Your task to perform on an android device: turn off data saver in the chrome app Image 0: 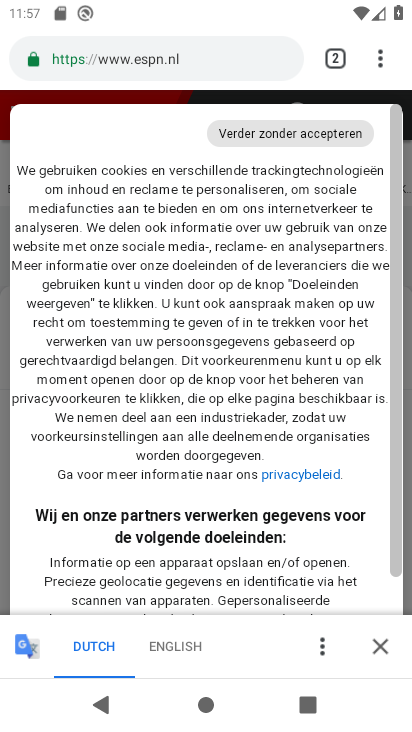
Step 0: press home button
Your task to perform on an android device: turn off data saver in the chrome app Image 1: 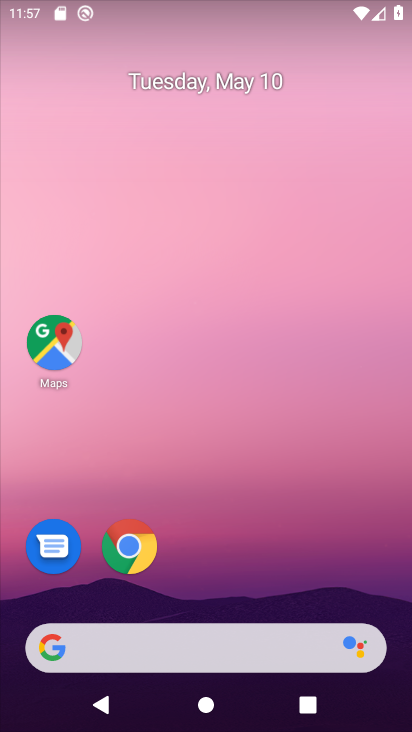
Step 1: drag from (267, 514) to (278, 299)
Your task to perform on an android device: turn off data saver in the chrome app Image 2: 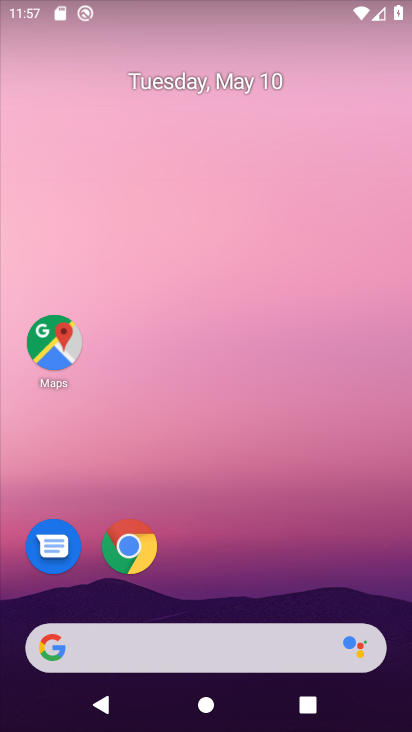
Step 2: drag from (257, 573) to (294, 290)
Your task to perform on an android device: turn off data saver in the chrome app Image 3: 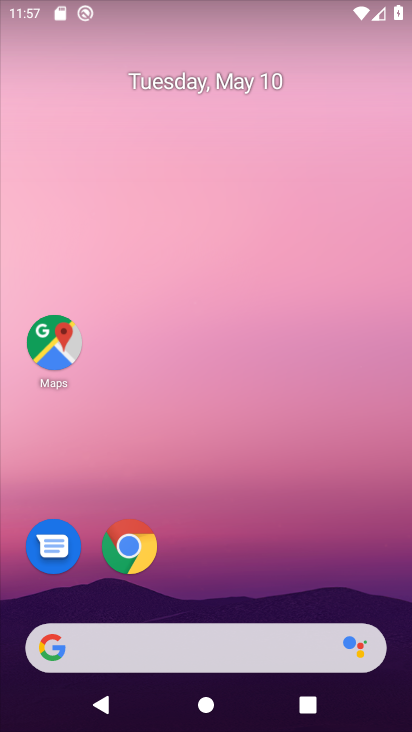
Step 3: drag from (242, 611) to (268, 226)
Your task to perform on an android device: turn off data saver in the chrome app Image 4: 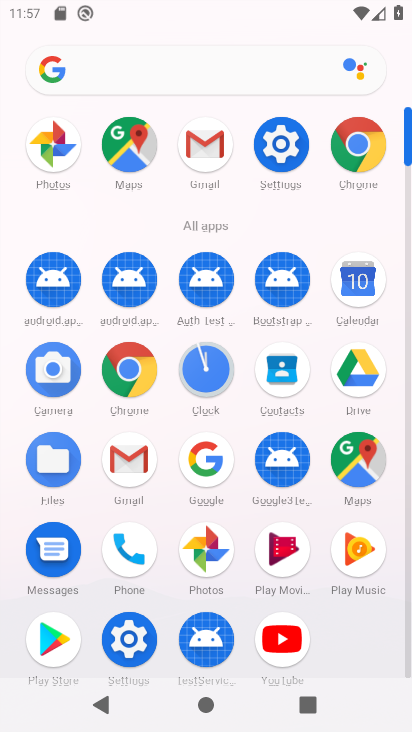
Step 4: click (367, 146)
Your task to perform on an android device: turn off data saver in the chrome app Image 5: 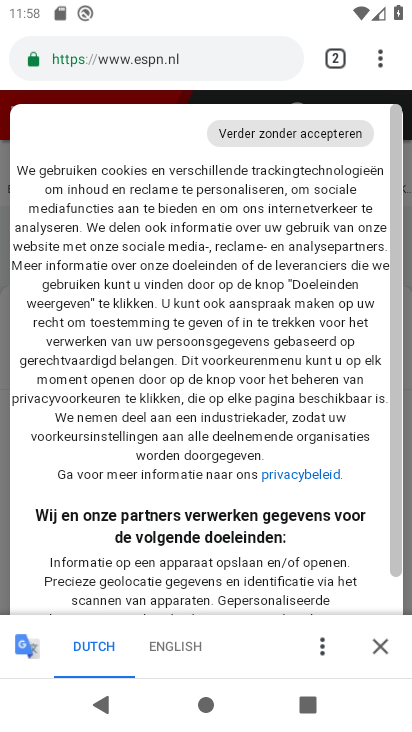
Step 5: click (368, 60)
Your task to perform on an android device: turn off data saver in the chrome app Image 6: 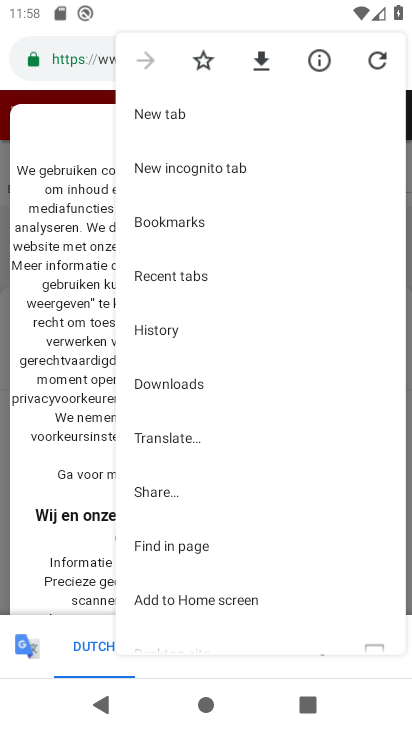
Step 6: drag from (203, 556) to (249, 292)
Your task to perform on an android device: turn off data saver in the chrome app Image 7: 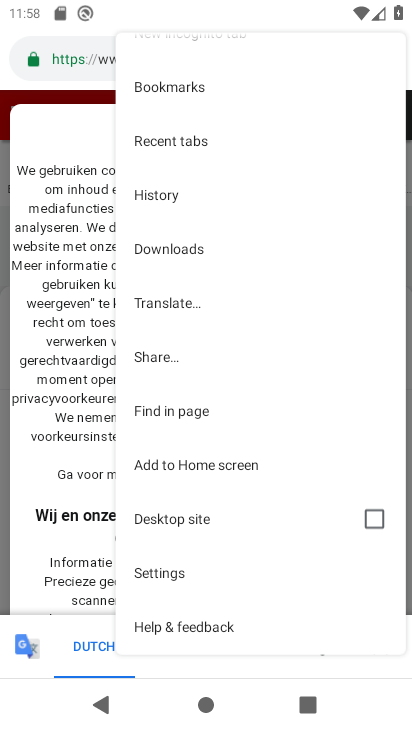
Step 7: click (189, 573)
Your task to perform on an android device: turn off data saver in the chrome app Image 8: 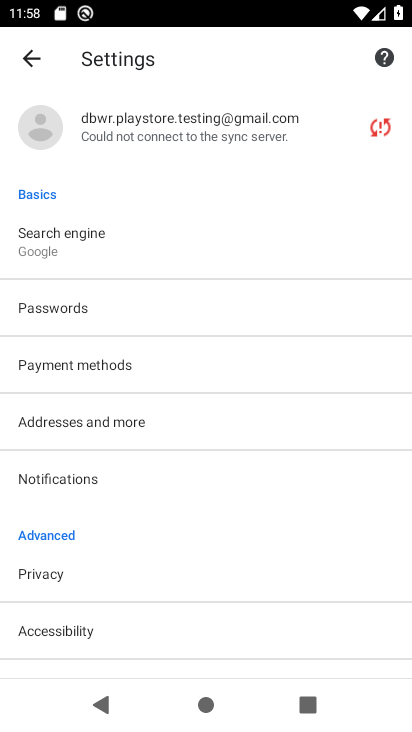
Step 8: drag from (154, 623) to (228, 250)
Your task to perform on an android device: turn off data saver in the chrome app Image 9: 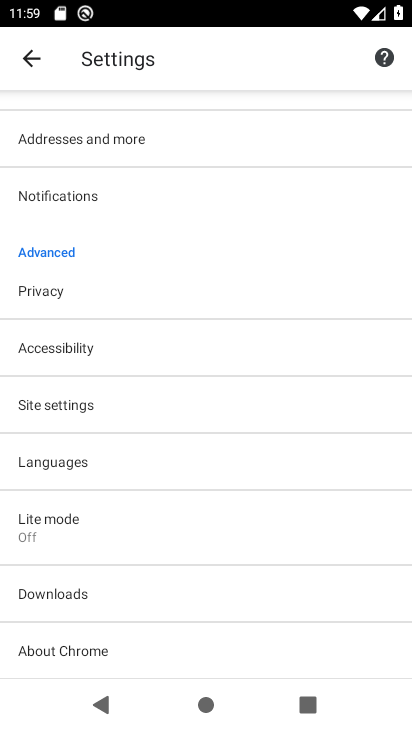
Step 9: click (63, 536)
Your task to perform on an android device: turn off data saver in the chrome app Image 10: 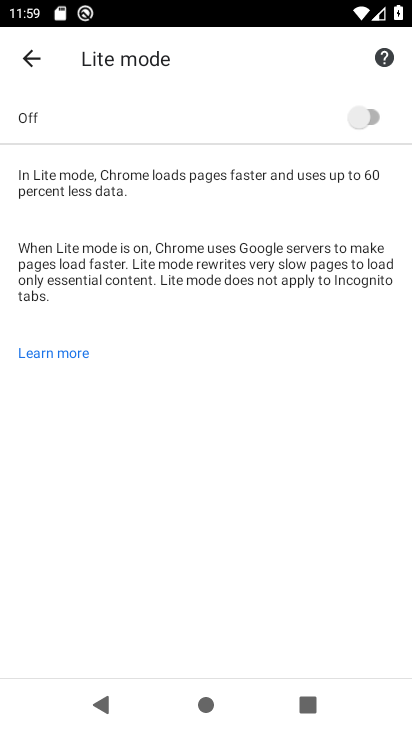
Step 10: task complete